Your task to perform on an android device: Open wifi settings Image 0: 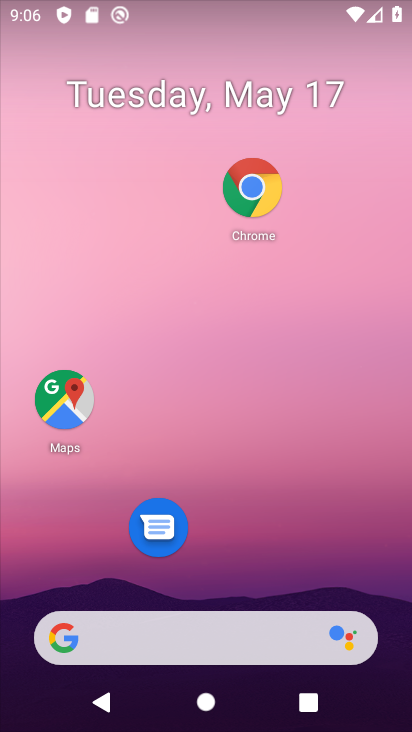
Step 0: drag from (335, 569) to (349, 156)
Your task to perform on an android device: Open wifi settings Image 1: 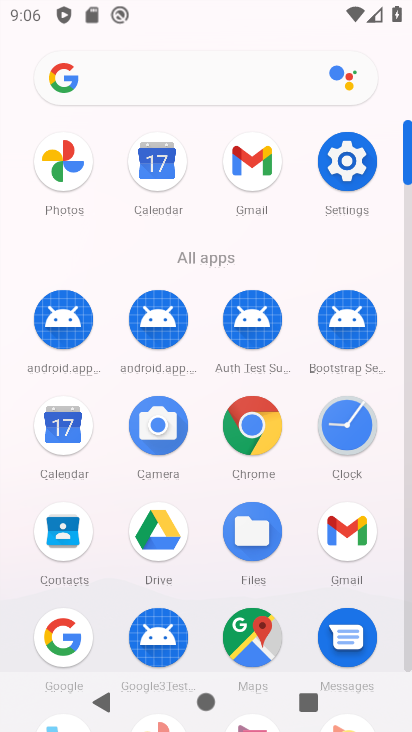
Step 1: click (354, 204)
Your task to perform on an android device: Open wifi settings Image 2: 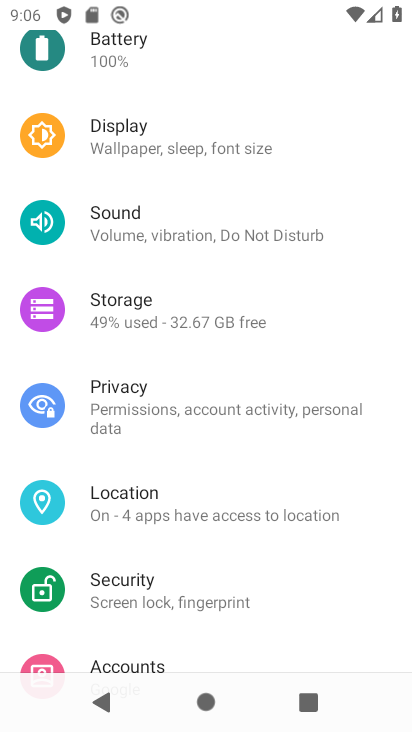
Step 2: drag from (219, 318) to (241, 529)
Your task to perform on an android device: Open wifi settings Image 3: 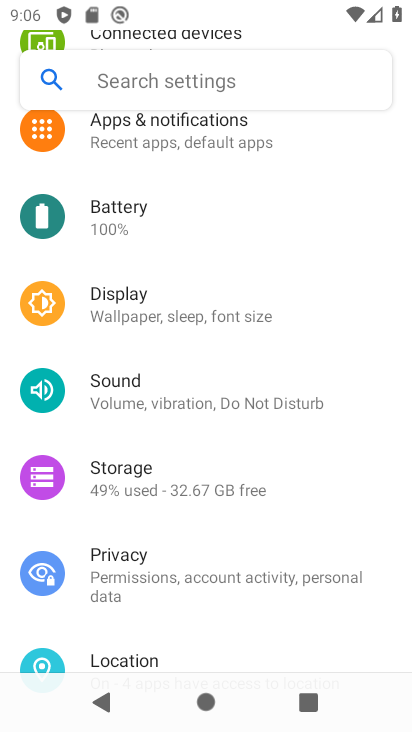
Step 3: drag from (262, 244) to (256, 557)
Your task to perform on an android device: Open wifi settings Image 4: 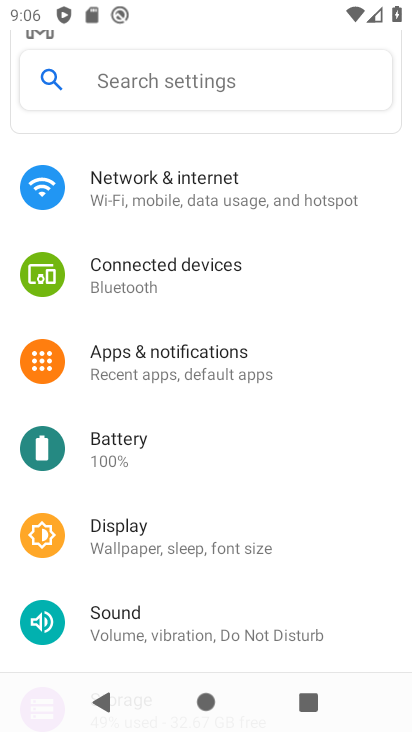
Step 4: click (221, 211)
Your task to perform on an android device: Open wifi settings Image 5: 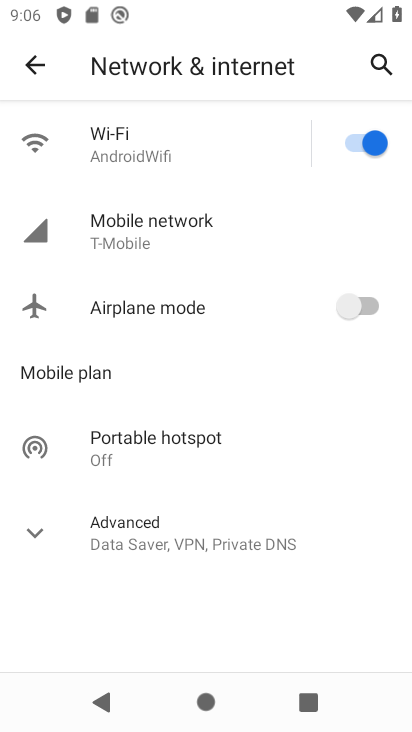
Step 5: task complete